Your task to perform on an android device: visit the assistant section in the google photos Image 0: 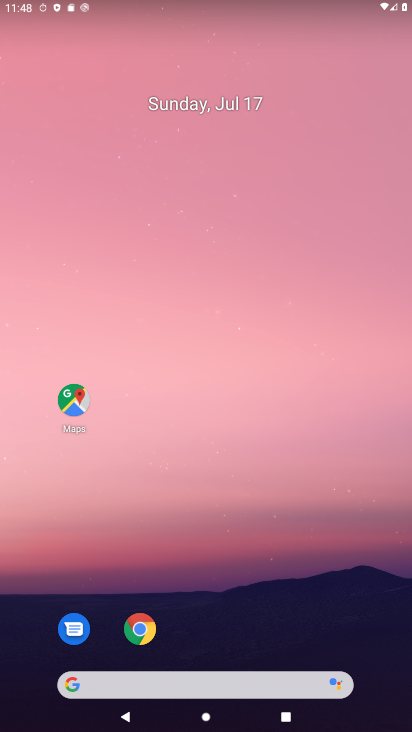
Step 0: drag from (219, 646) to (261, 105)
Your task to perform on an android device: visit the assistant section in the google photos Image 1: 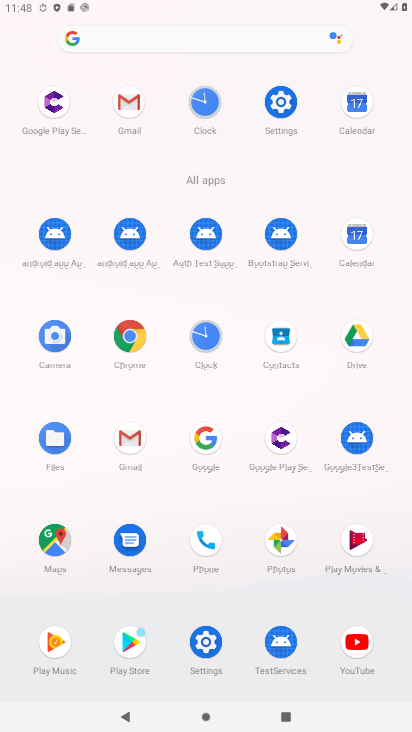
Step 1: click (274, 531)
Your task to perform on an android device: visit the assistant section in the google photos Image 2: 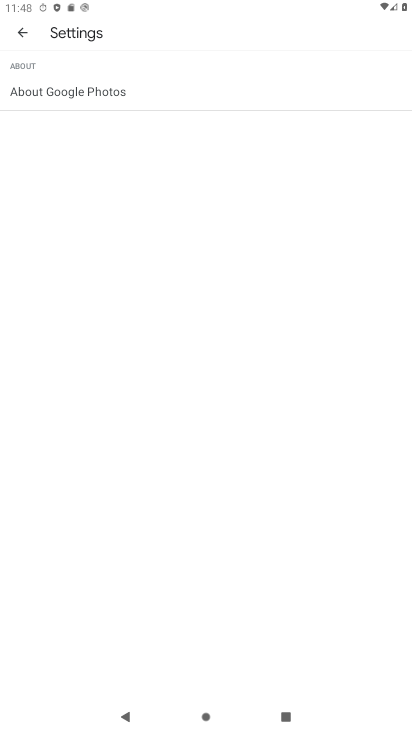
Step 2: click (18, 32)
Your task to perform on an android device: visit the assistant section in the google photos Image 3: 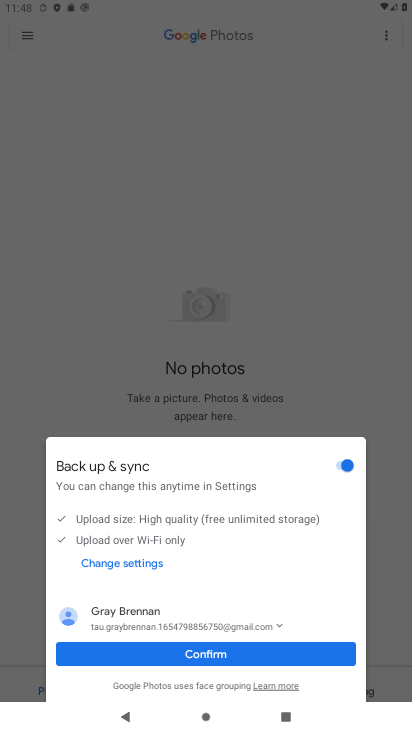
Step 3: click (199, 655)
Your task to perform on an android device: visit the assistant section in the google photos Image 4: 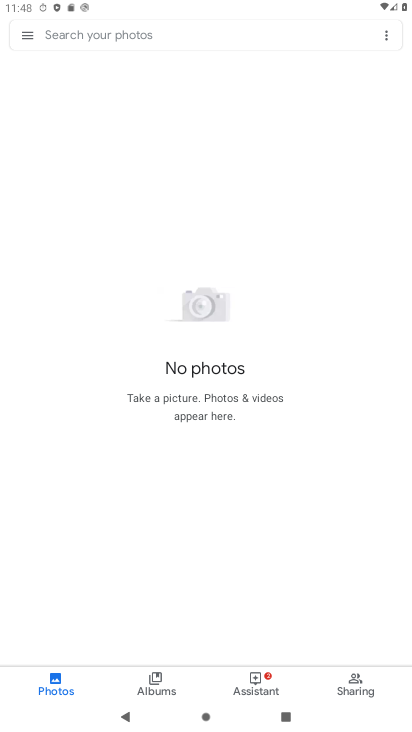
Step 4: click (248, 673)
Your task to perform on an android device: visit the assistant section in the google photos Image 5: 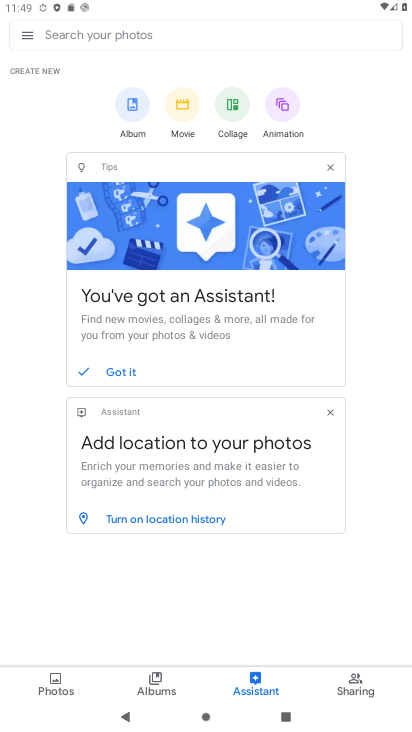
Step 5: task complete